Your task to perform on an android device: Add corsair k70 to the cart on newegg.com, then select checkout. Image 0: 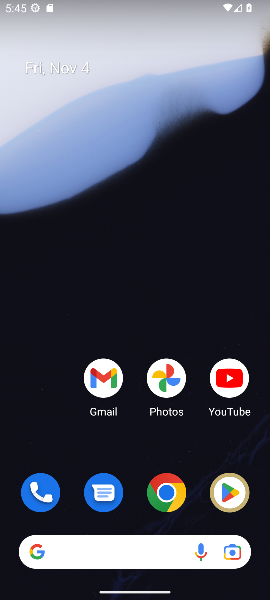
Step 0: drag from (135, 435) to (121, 9)
Your task to perform on an android device: Add corsair k70 to the cart on newegg.com, then select checkout. Image 1: 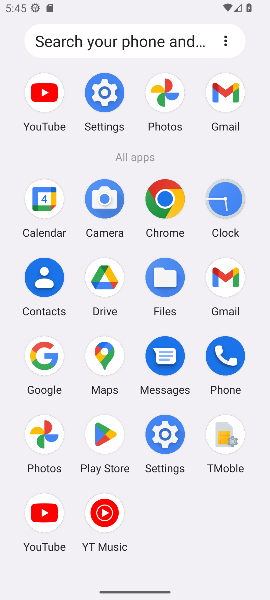
Step 1: click (168, 201)
Your task to perform on an android device: Add corsair k70 to the cart on newegg.com, then select checkout. Image 2: 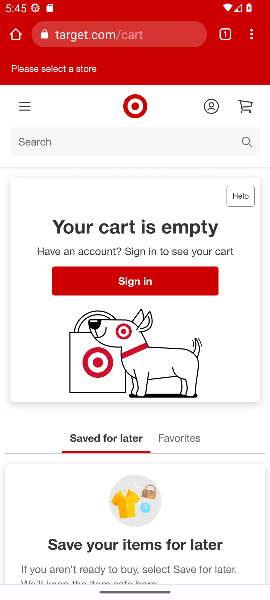
Step 2: click (120, 39)
Your task to perform on an android device: Add corsair k70 to the cart on newegg.com, then select checkout. Image 3: 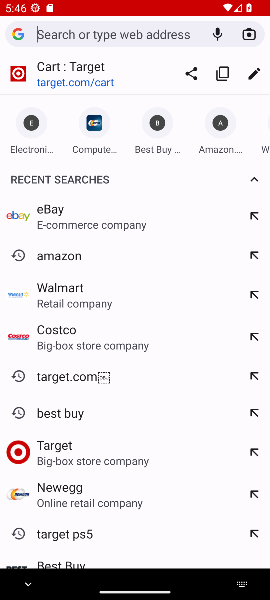
Step 3: type "newegg.com"
Your task to perform on an android device: Add corsair k70 to the cart on newegg.com, then select checkout. Image 4: 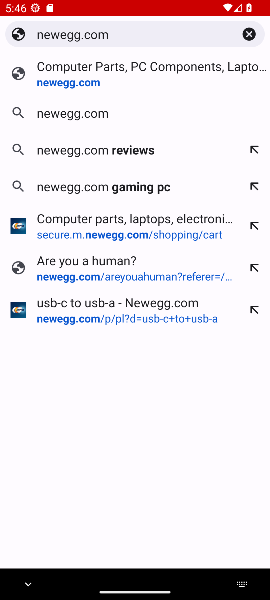
Step 4: press enter
Your task to perform on an android device: Add corsair k70 to the cart on newegg.com, then select checkout. Image 5: 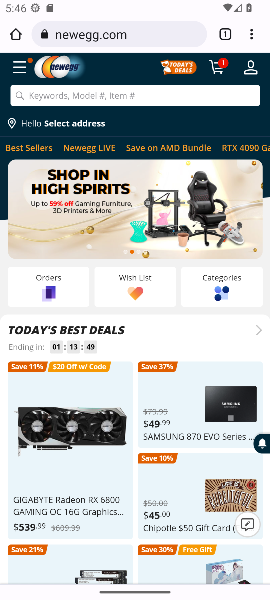
Step 5: click (173, 101)
Your task to perform on an android device: Add corsair k70 to the cart on newegg.com, then select checkout. Image 6: 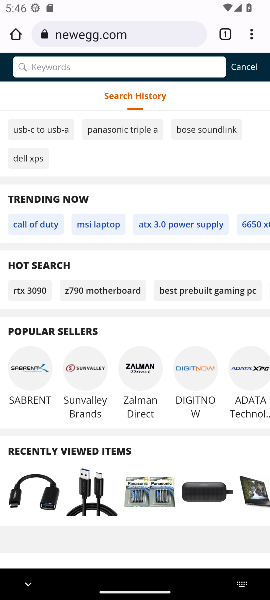
Step 6: type "corsair k70"
Your task to perform on an android device: Add corsair k70 to the cart on newegg.com, then select checkout. Image 7: 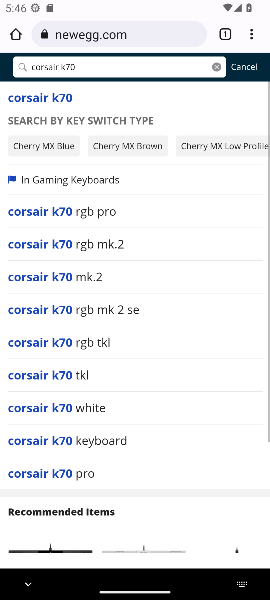
Step 7: press enter
Your task to perform on an android device: Add corsair k70 to the cart on newegg.com, then select checkout. Image 8: 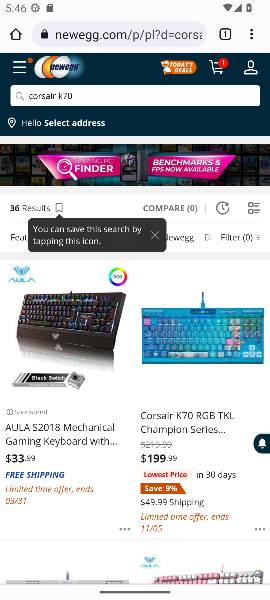
Step 8: click (181, 424)
Your task to perform on an android device: Add corsair k70 to the cart on newegg.com, then select checkout. Image 9: 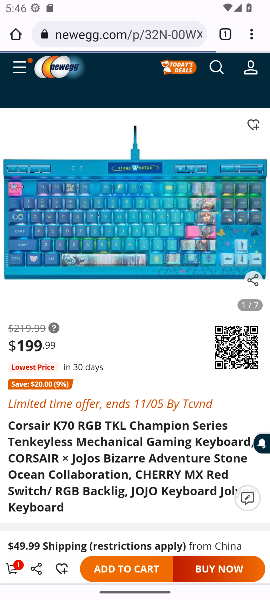
Step 9: drag from (193, 481) to (175, 228)
Your task to perform on an android device: Add corsair k70 to the cart on newegg.com, then select checkout. Image 10: 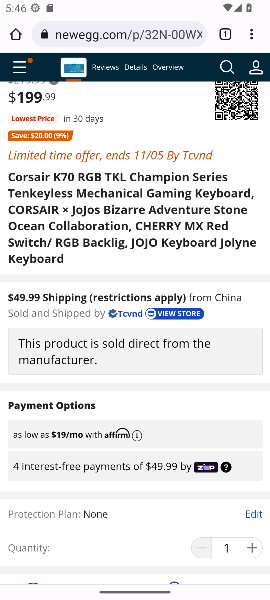
Step 10: drag from (139, 277) to (93, 393)
Your task to perform on an android device: Add corsair k70 to the cart on newegg.com, then select checkout. Image 11: 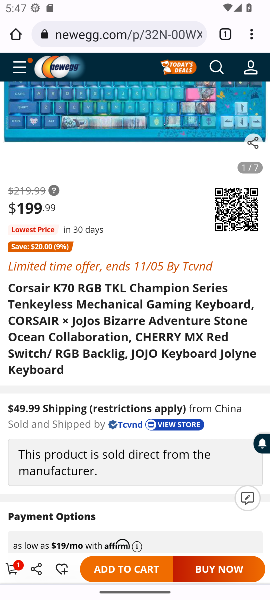
Step 11: click (129, 569)
Your task to perform on an android device: Add corsair k70 to the cart on newegg.com, then select checkout. Image 12: 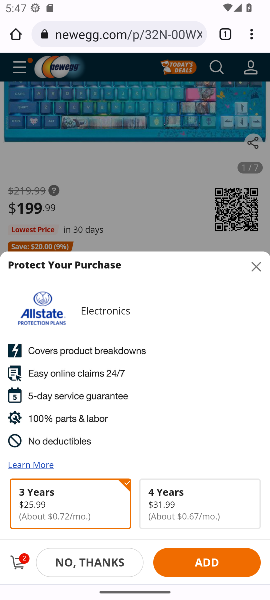
Step 12: click (19, 563)
Your task to perform on an android device: Add corsair k70 to the cart on newegg.com, then select checkout. Image 13: 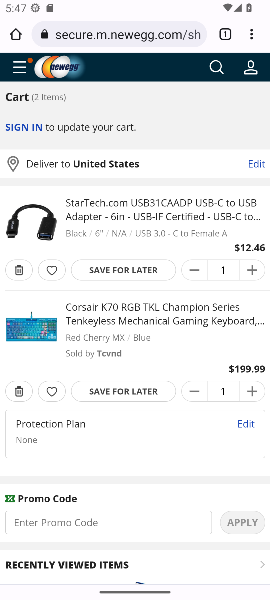
Step 13: click (152, 532)
Your task to perform on an android device: Add corsair k70 to the cart on newegg.com, then select checkout. Image 14: 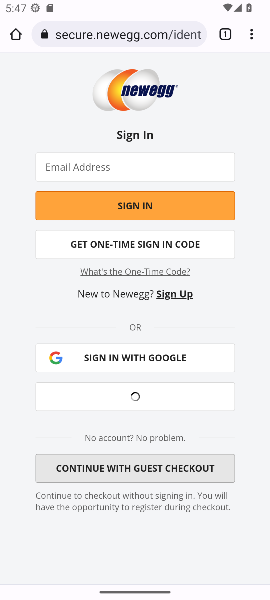
Step 14: click (152, 532)
Your task to perform on an android device: Add corsair k70 to the cart on newegg.com, then select checkout. Image 15: 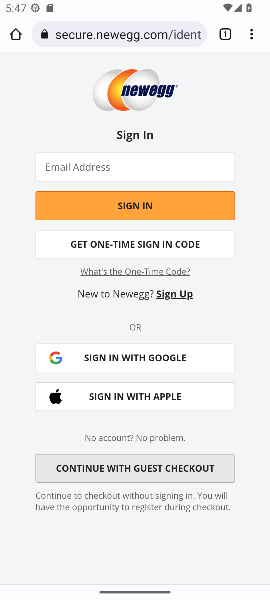
Step 15: task complete